Your task to perform on an android device: toggle airplane mode Image 0: 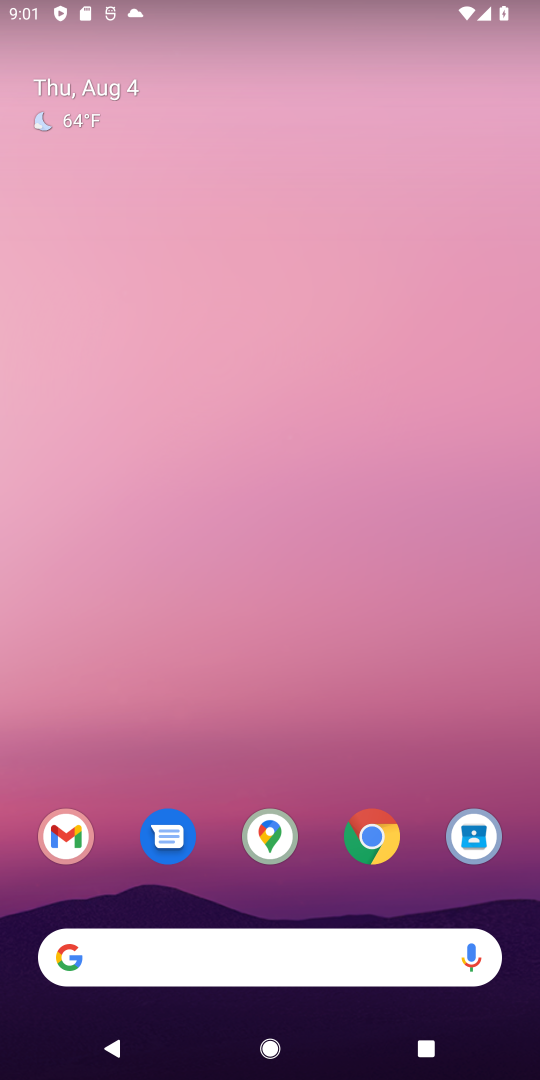
Step 0: drag from (480, 7) to (426, 707)
Your task to perform on an android device: toggle airplane mode Image 1: 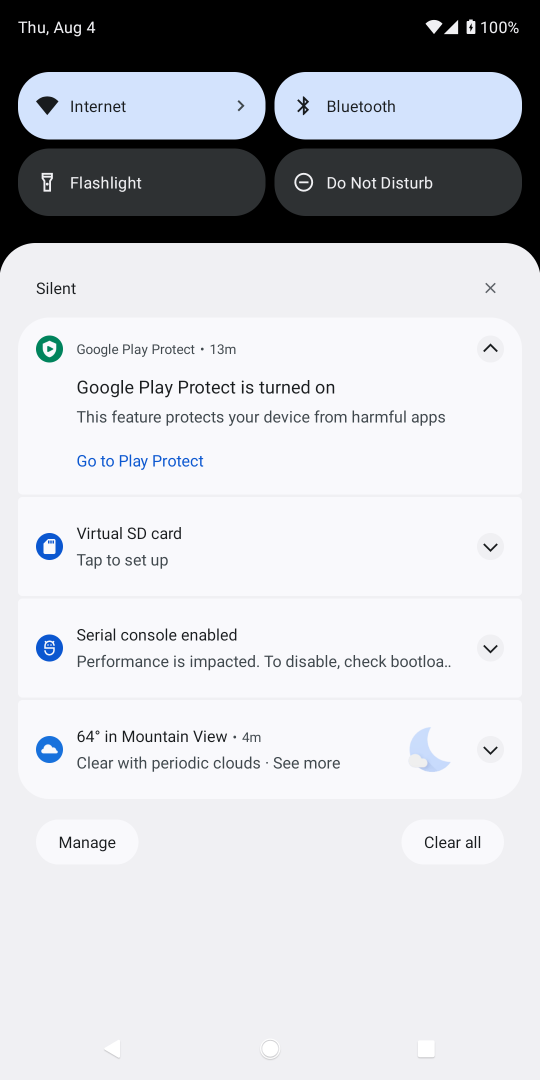
Step 1: drag from (259, 231) to (195, 1064)
Your task to perform on an android device: toggle airplane mode Image 2: 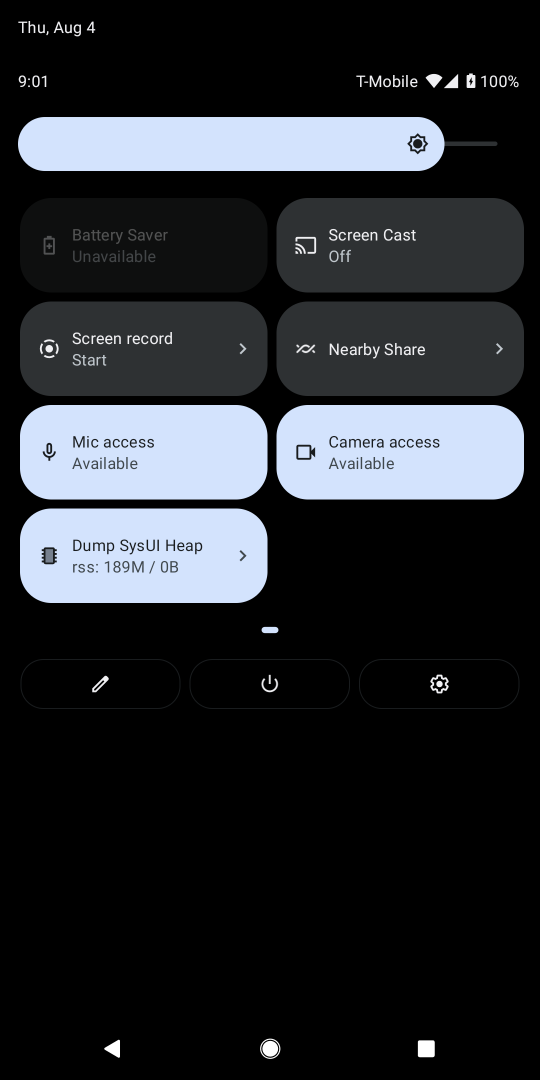
Step 2: click (339, 449)
Your task to perform on an android device: toggle airplane mode Image 3: 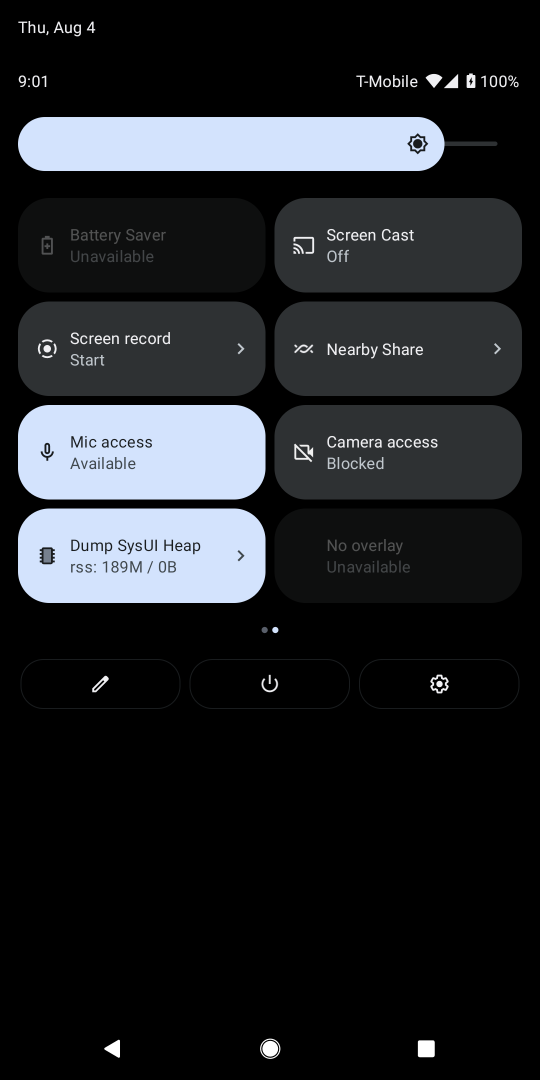
Step 3: drag from (60, 435) to (424, 459)
Your task to perform on an android device: toggle airplane mode Image 4: 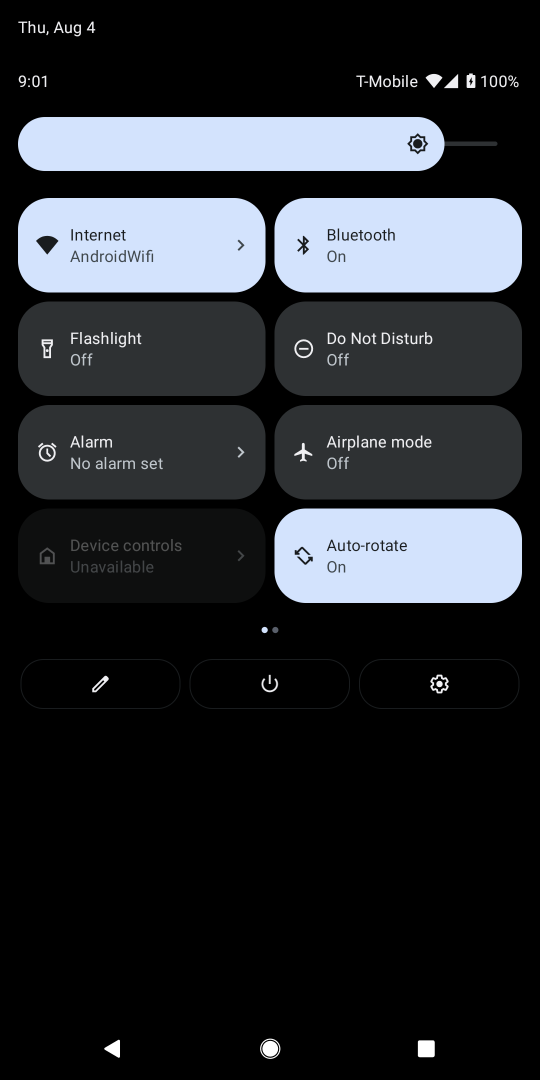
Step 4: click (367, 446)
Your task to perform on an android device: toggle airplane mode Image 5: 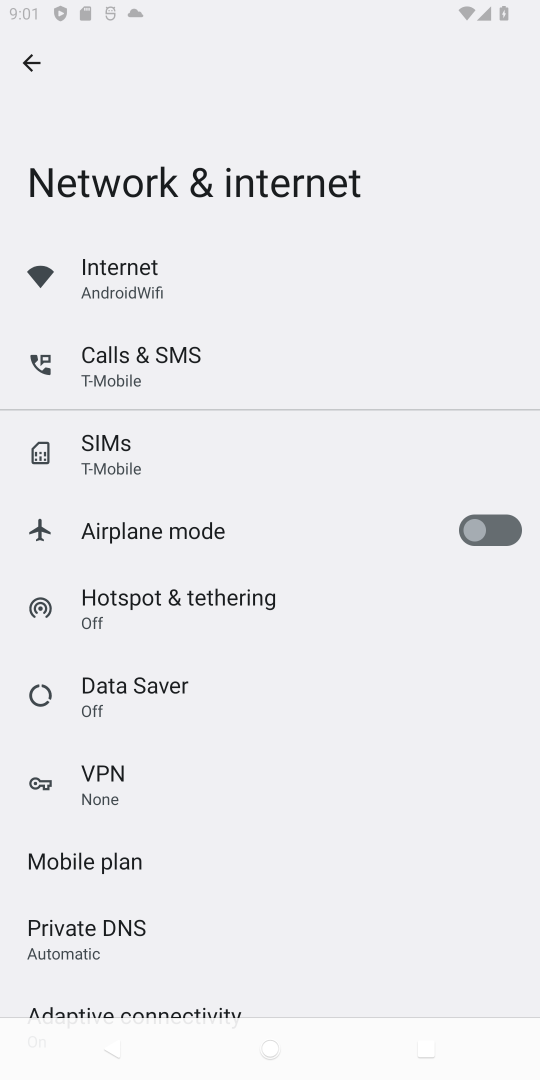
Step 5: task complete